Your task to perform on an android device: allow notifications from all sites in the chrome app Image 0: 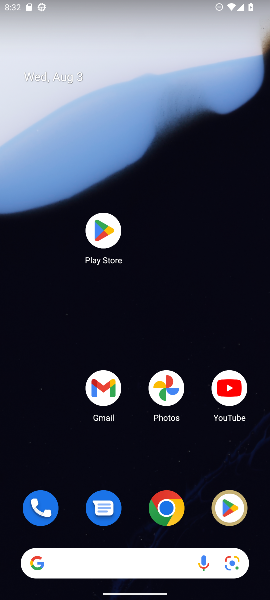
Step 0: drag from (149, 541) to (102, 0)
Your task to perform on an android device: allow notifications from all sites in the chrome app Image 1: 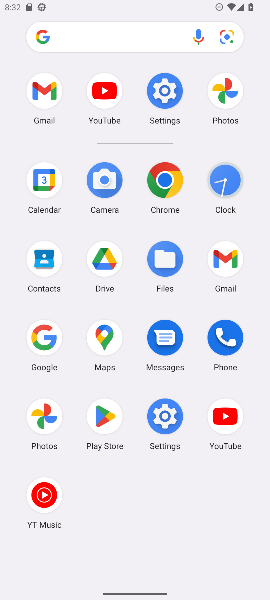
Step 1: click (160, 171)
Your task to perform on an android device: allow notifications from all sites in the chrome app Image 2: 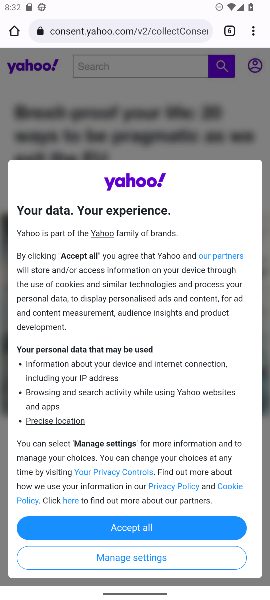
Step 2: click (251, 23)
Your task to perform on an android device: allow notifications from all sites in the chrome app Image 3: 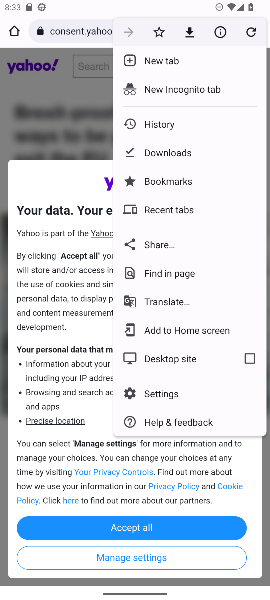
Step 3: click (169, 386)
Your task to perform on an android device: allow notifications from all sites in the chrome app Image 4: 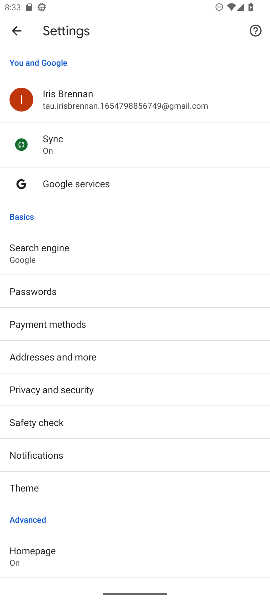
Step 4: drag from (91, 466) to (76, 98)
Your task to perform on an android device: allow notifications from all sites in the chrome app Image 5: 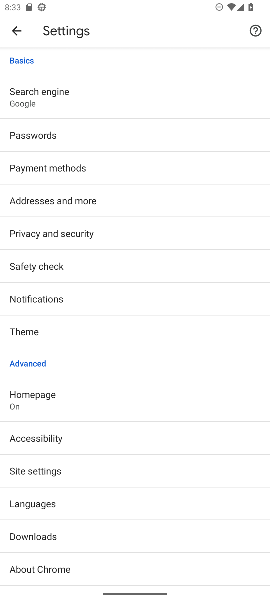
Step 5: click (35, 476)
Your task to perform on an android device: allow notifications from all sites in the chrome app Image 6: 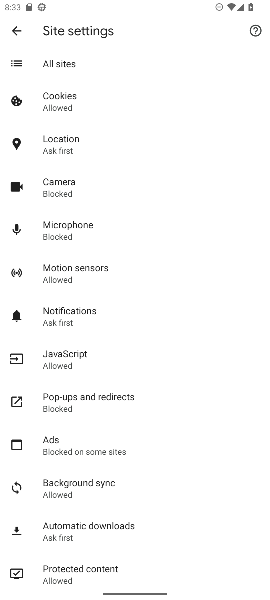
Step 6: drag from (120, 503) to (118, 183)
Your task to perform on an android device: allow notifications from all sites in the chrome app Image 7: 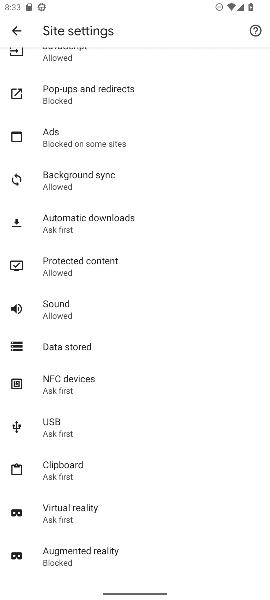
Step 7: drag from (187, 155) to (135, 489)
Your task to perform on an android device: allow notifications from all sites in the chrome app Image 8: 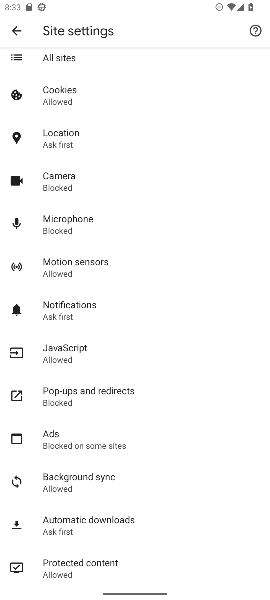
Step 8: click (89, 312)
Your task to perform on an android device: allow notifications from all sites in the chrome app Image 9: 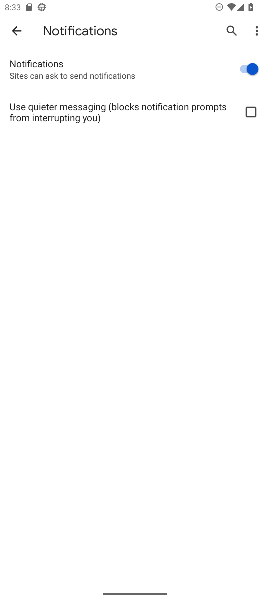
Step 9: task complete